Your task to perform on an android device: all mails in gmail Image 0: 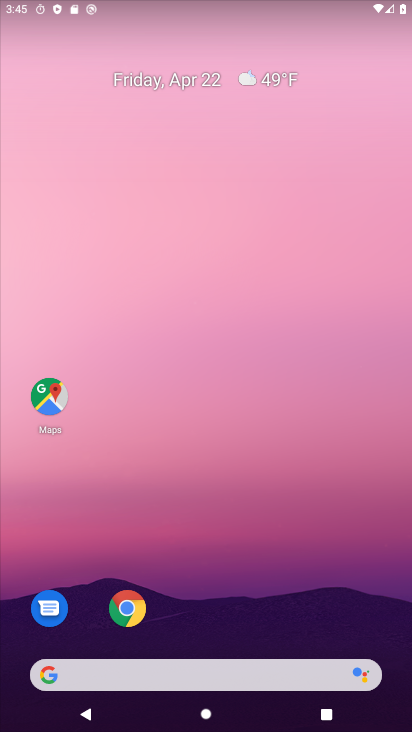
Step 0: drag from (287, 610) to (251, 6)
Your task to perform on an android device: all mails in gmail Image 1: 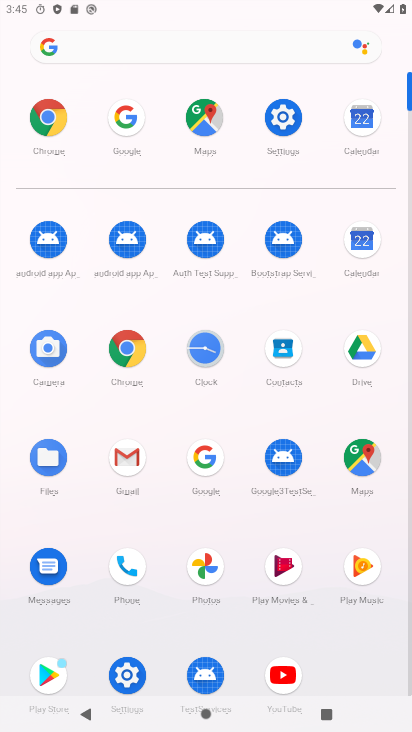
Step 1: click (131, 458)
Your task to perform on an android device: all mails in gmail Image 2: 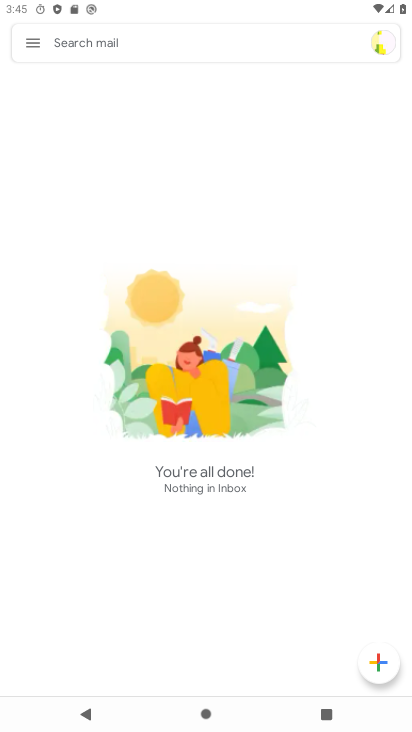
Step 2: click (34, 40)
Your task to perform on an android device: all mails in gmail Image 3: 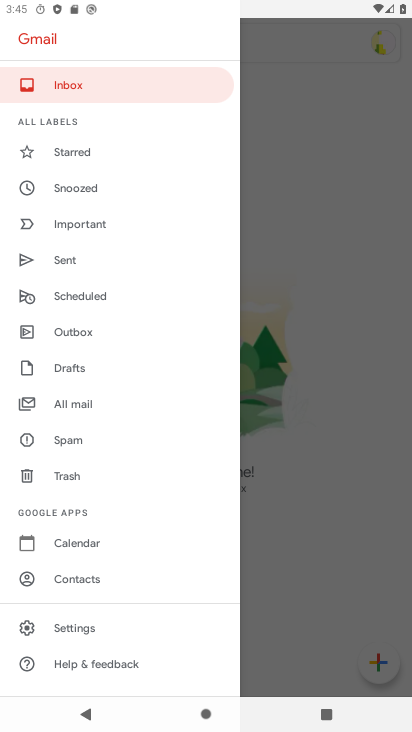
Step 3: click (78, 407)
Your task to perform on an android device: all mails in gmail Image 4: 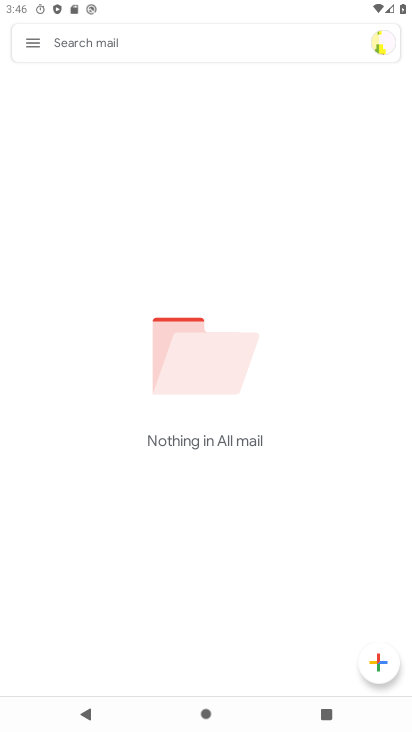
Step 4: task complete